Your task to perform on an android device: Set the phone to "Do not disturb". Image 0: 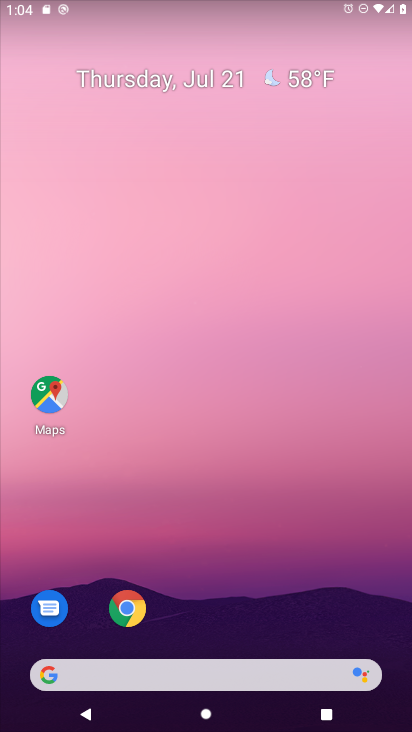
Step 0: drag from (197, 6) to (196, 421)
Your task to perform on an android device: Set the phone to "Do not disturb". Image 1: 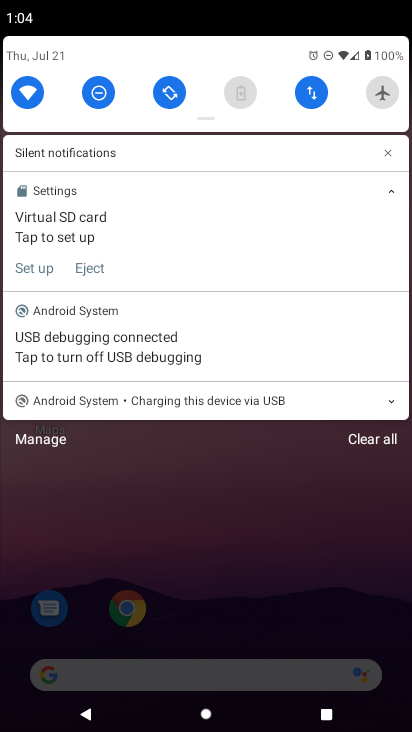
Step 1: task complete